Your task to perform on an android device: change the clock style Image 0: 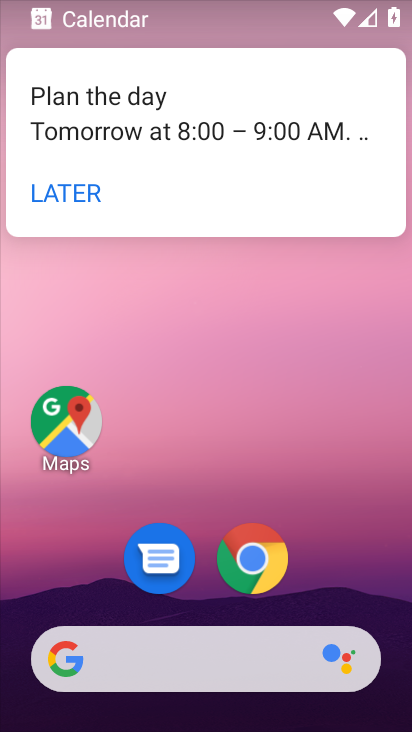
Step 0: drag from (201, 619) to (148, 0)
Your task to perform on an android device: change the clock style Image 1: 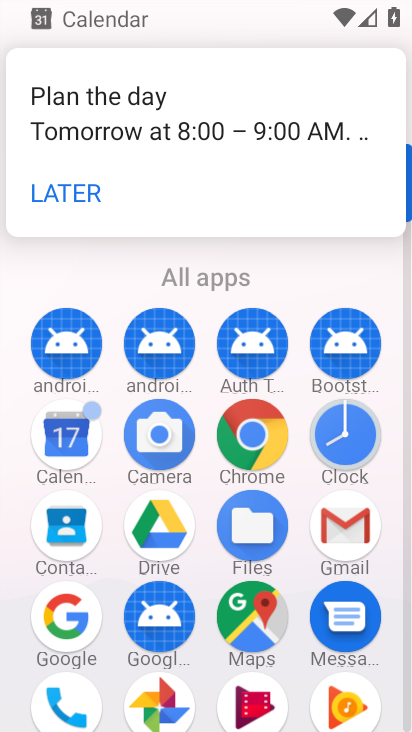
Step 1: click (81, 187)
Your task to perform on an android device: change the clock style Image 2: 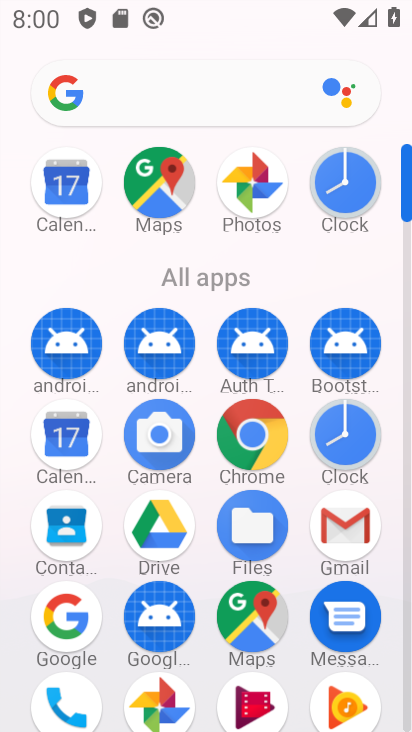
Step 2: click (354, 438)
Your task to perform on an android device: change the clock style Image 3: 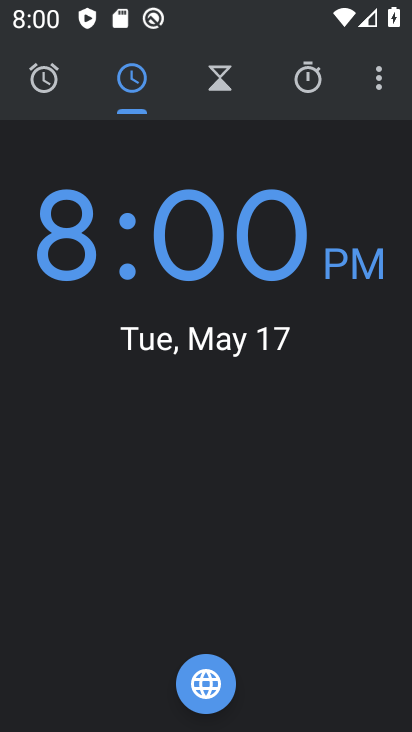
Step 3: click (388, 96)
Your task to perform on an android device: change the clock style Image 4: 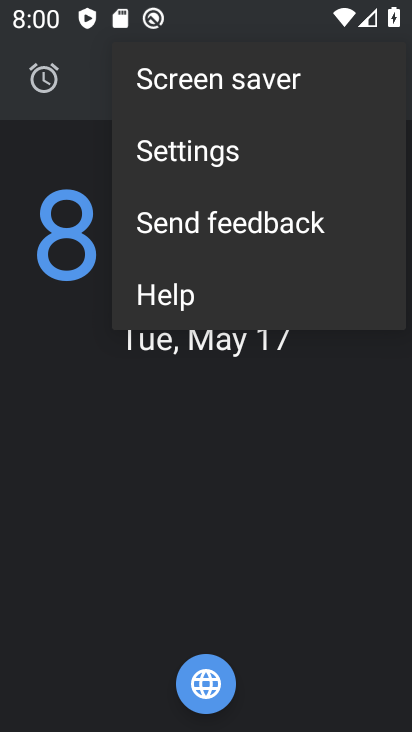
Step 4: click (209, 169)
Your task to perform on an android device: change the clock style Image 5: 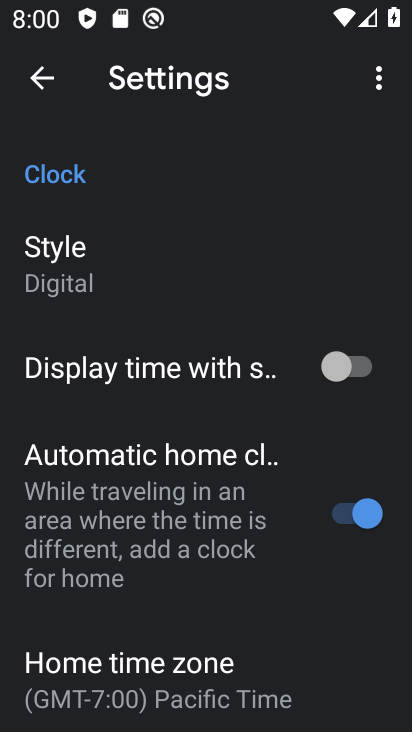
Step 5: click (87, 255)
Your task to perform on an android device: change the clock style Image 6: 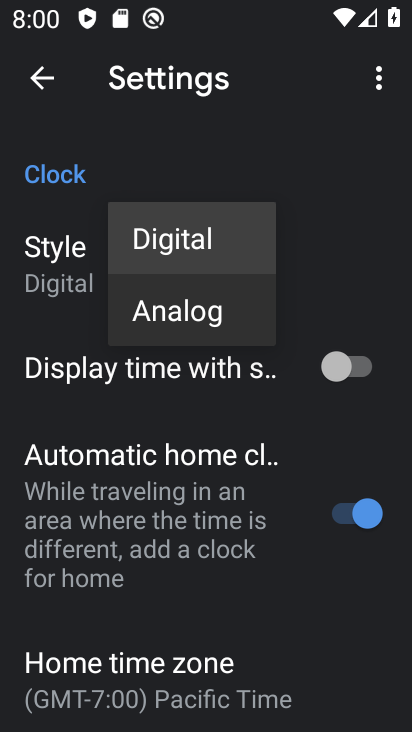
Step 6: click (197, 304)
Your task to perform on an android device: change the clock style Image 7: 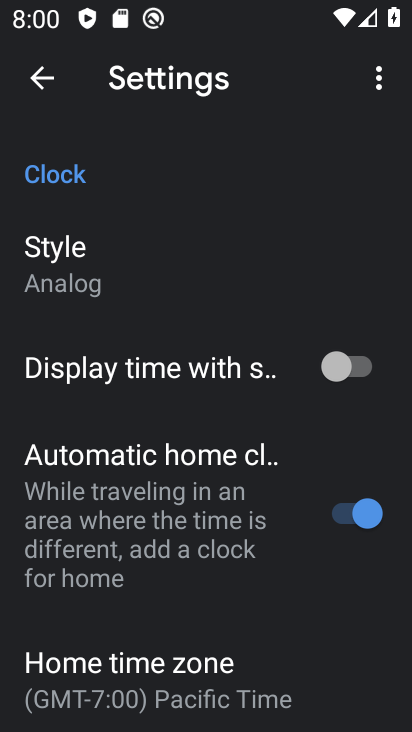
Step 7: task complete